Your task to perform on an android device: change the clock display to show seconds Image 0: 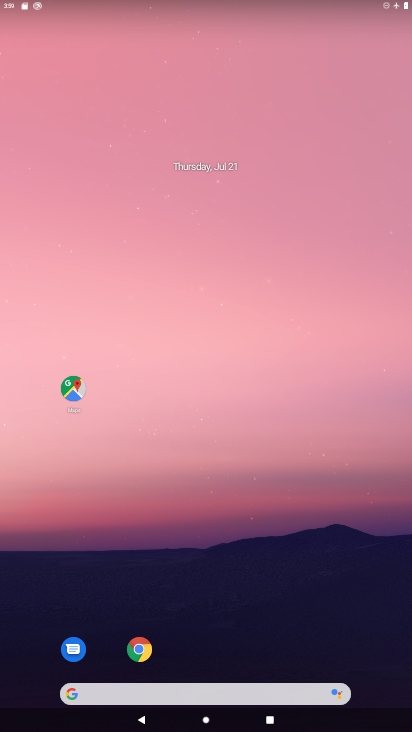
Step 0: drag from (213, 589) to (210, 118)
Your task to perform on an android device: change the clock display to show seconds Image 1: 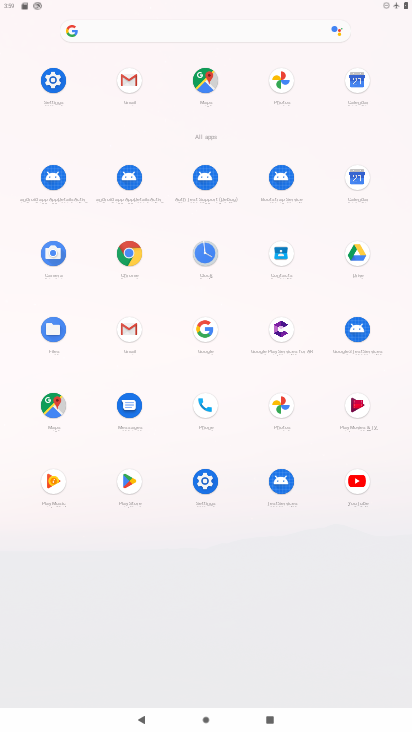
Step 1: click (201, 256)
Your task to perform on an android device: change the clock display to show seconds Image 2: 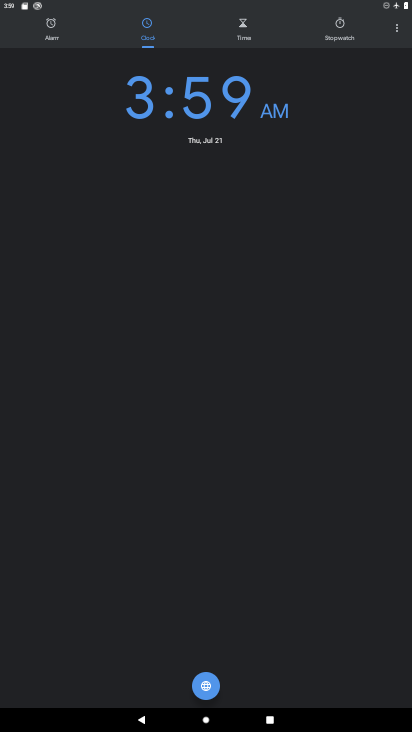
Step 2: click (395, 24)
Your task to perform on an android device: change the clock display to show seconds Image 3: 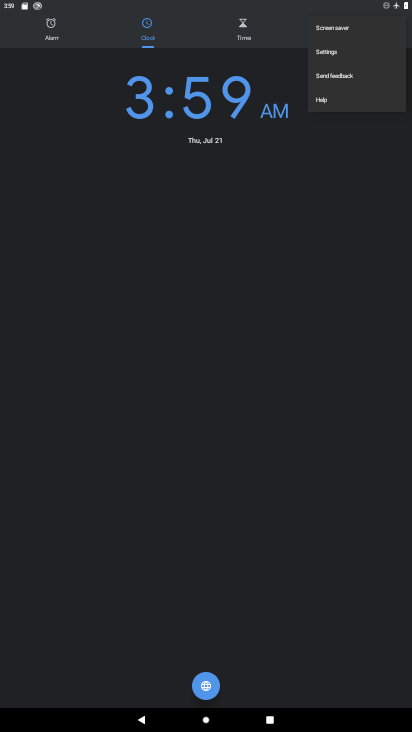
Step 3: click (330, 51)
Your task to perform on an android device: change the clock display to show seconds Image 4: 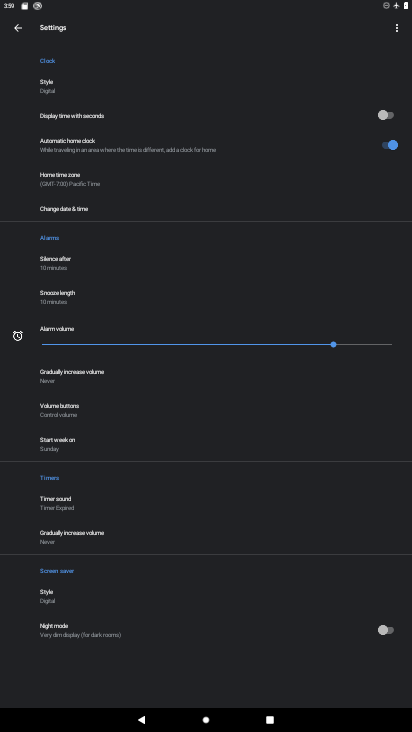
Step 4: click (383, 115)
Your task to perform on an android device: change the clock display to show seconds Image 5: 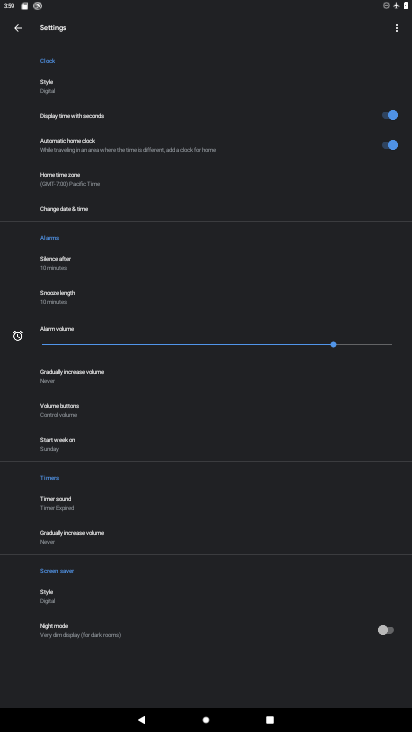
Step 5: task complete